Your task to perform on an android device: Add "dell xps" to the cart on target, then select checkout. Image 0: 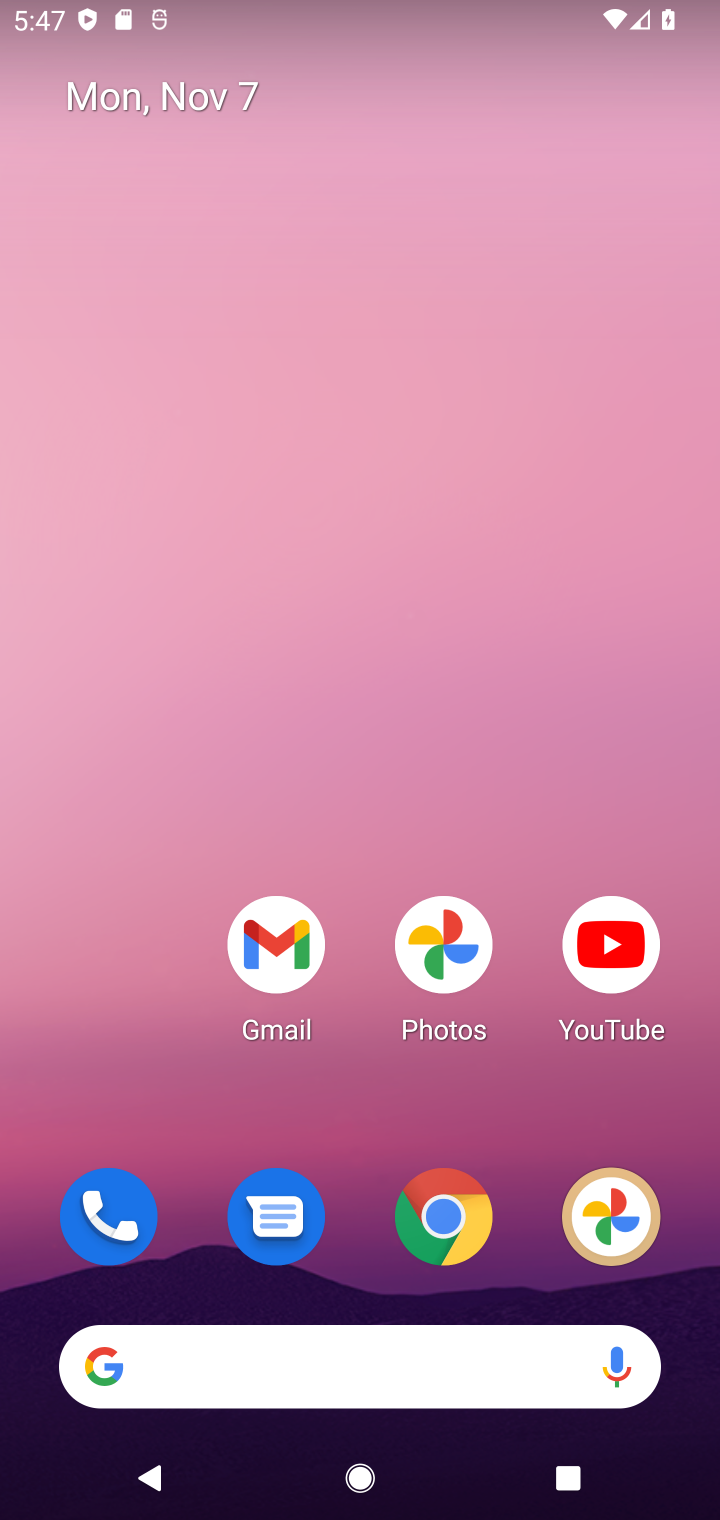
Step 0: drag from (352, 1118) to (153, 21)
Your task to perform on an android device: Add "dell xps" to the cart on target, then select checkout. Image 1: 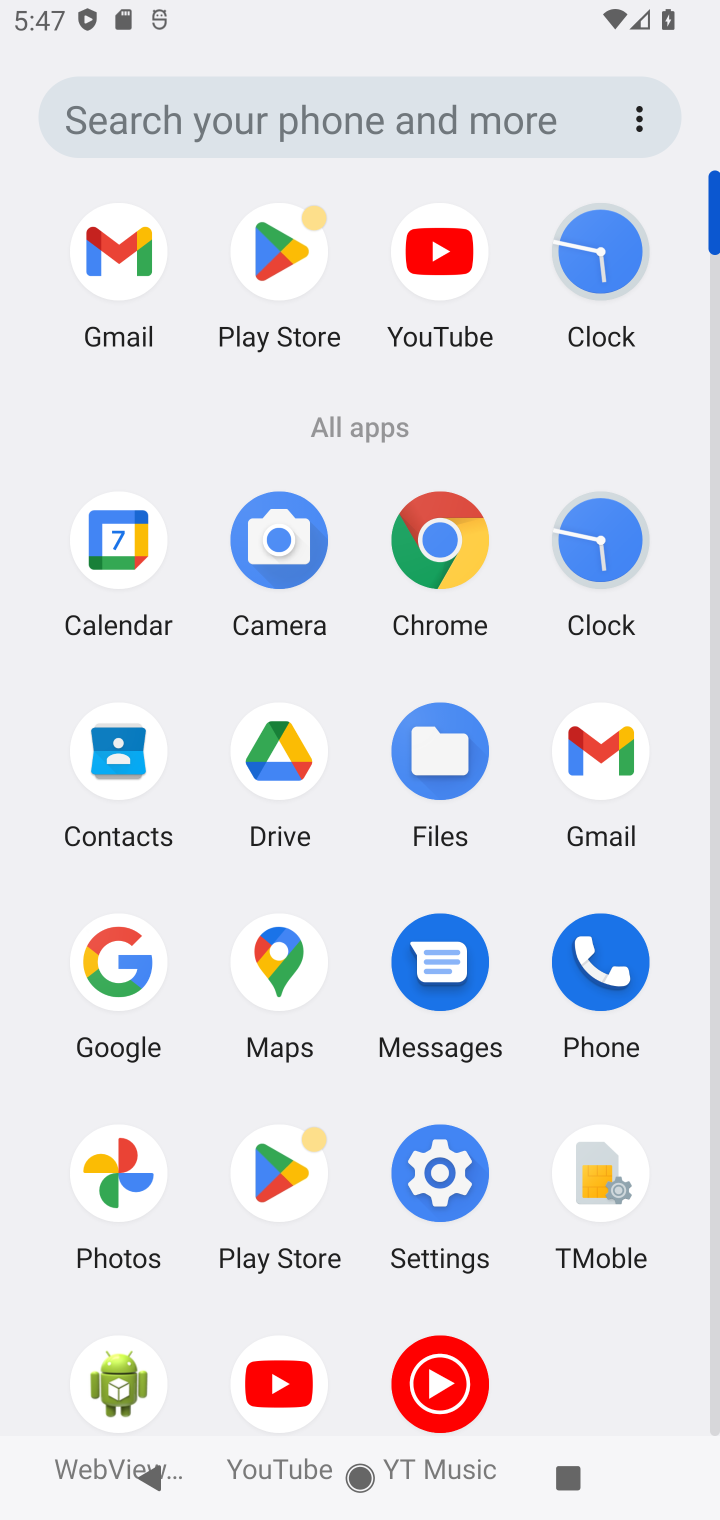
Step 1: click (425, 542)
Your task to perform on an android device: Add "dell xps" to the cart on target, then select checkout. Image 2: 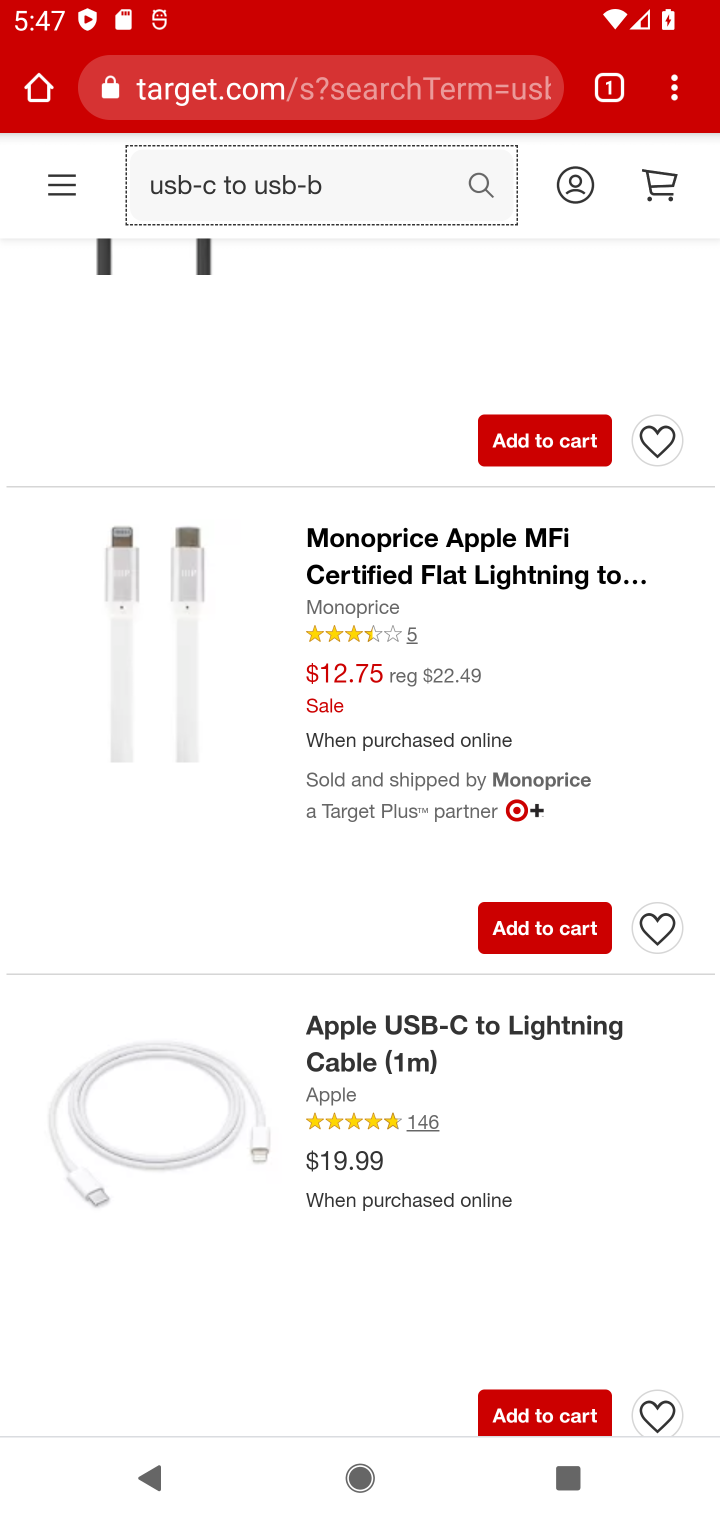
Step 2: click (306, 94)
Your task to perform on an android device: Add "dell xps" to the cart on target, then select checkout. Image 3: 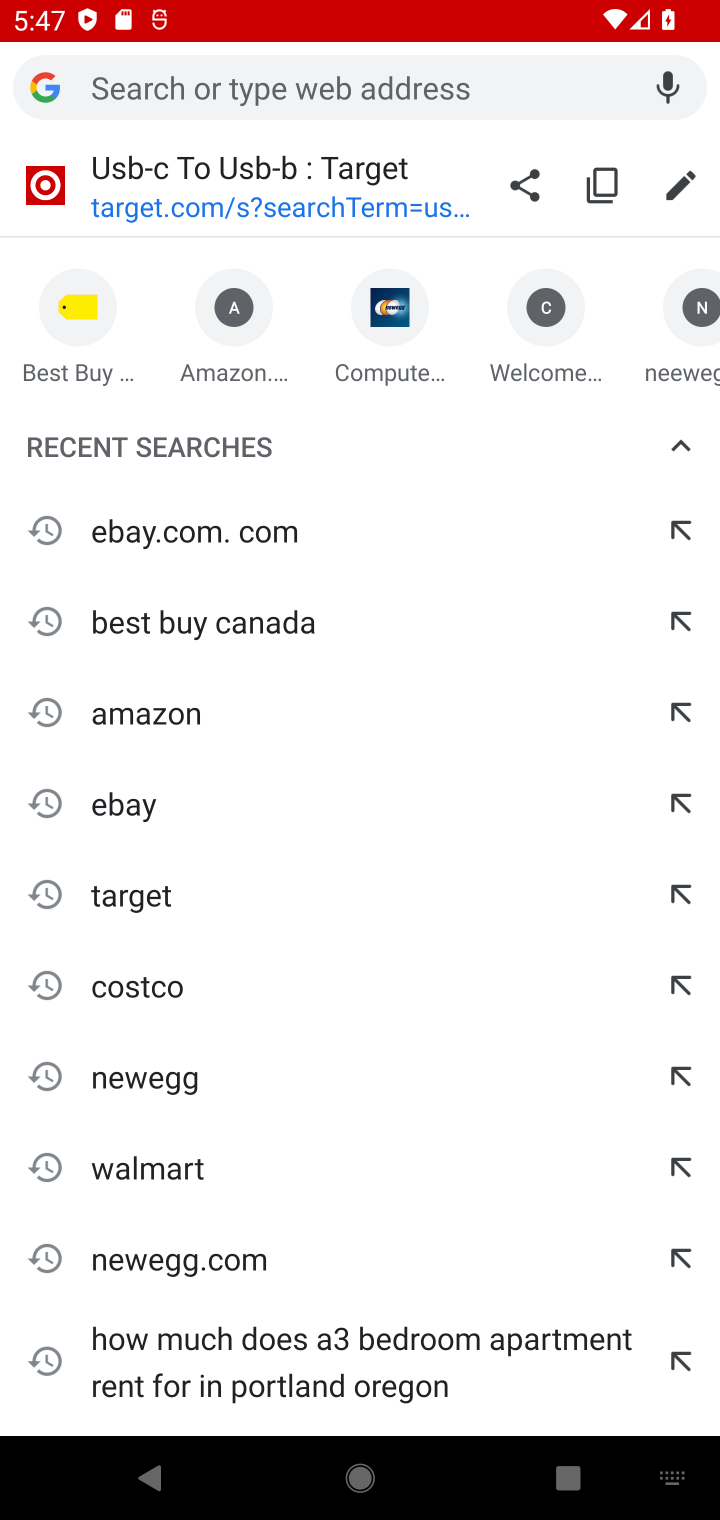
Step 3: type "target.com"
Your task to perform on an android device: Add "dell xps" to the cart on target, then select checkout. Image 4: 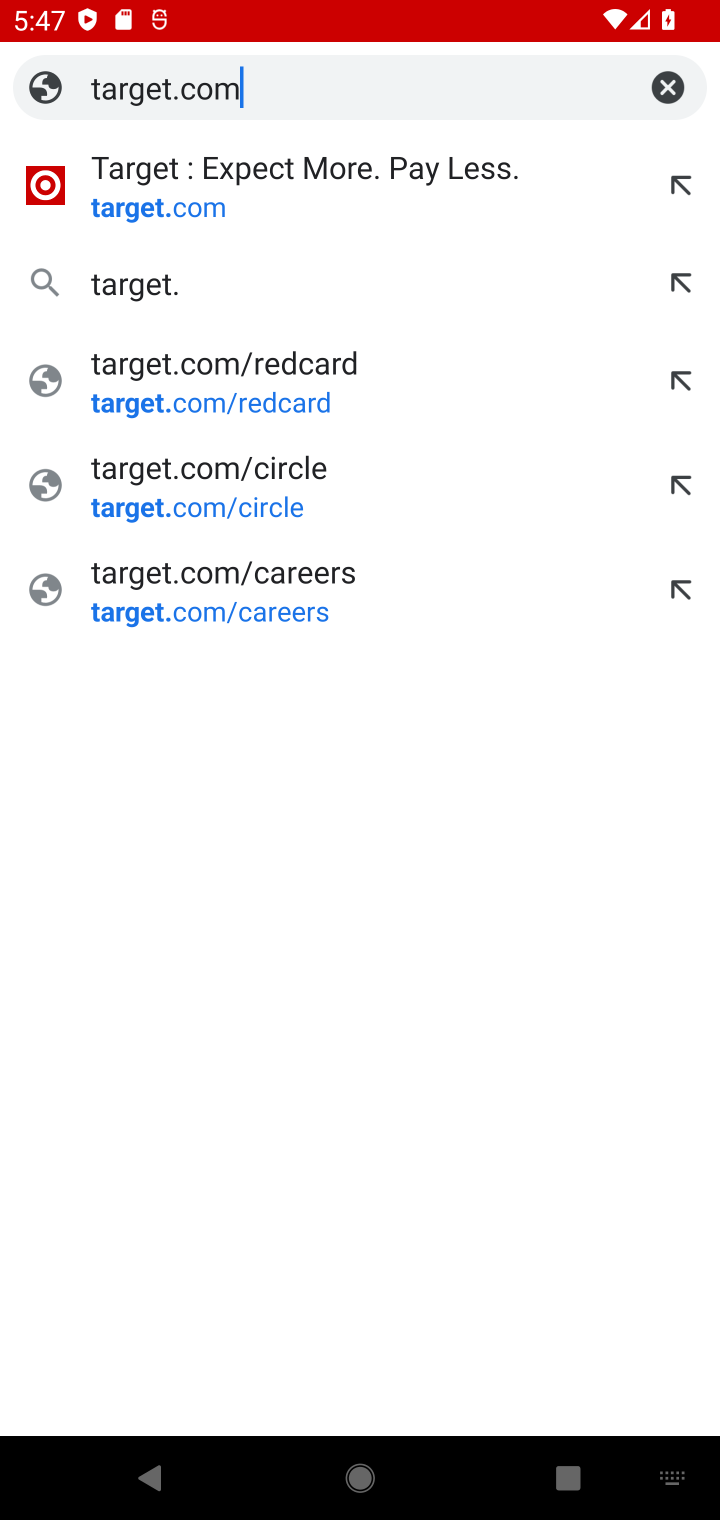
Step 4: press enter
Your task to perform on an android device: Add "dell xps" to the cart on target, then select checkout. Image 5: 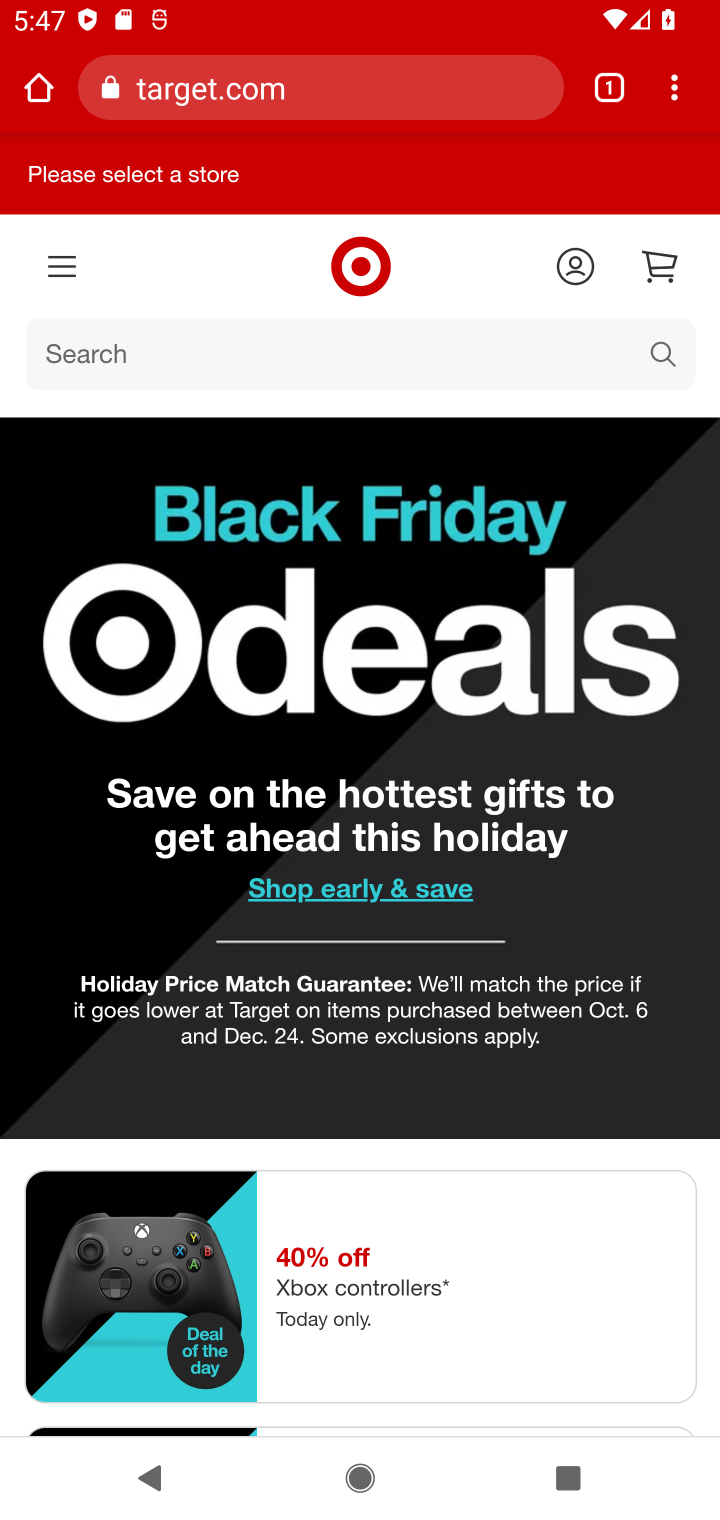
Step 5: click (215, 335)
Your task to perform on an android device: Add "dell xps" to the cart on target, then select checkout. Image 6: 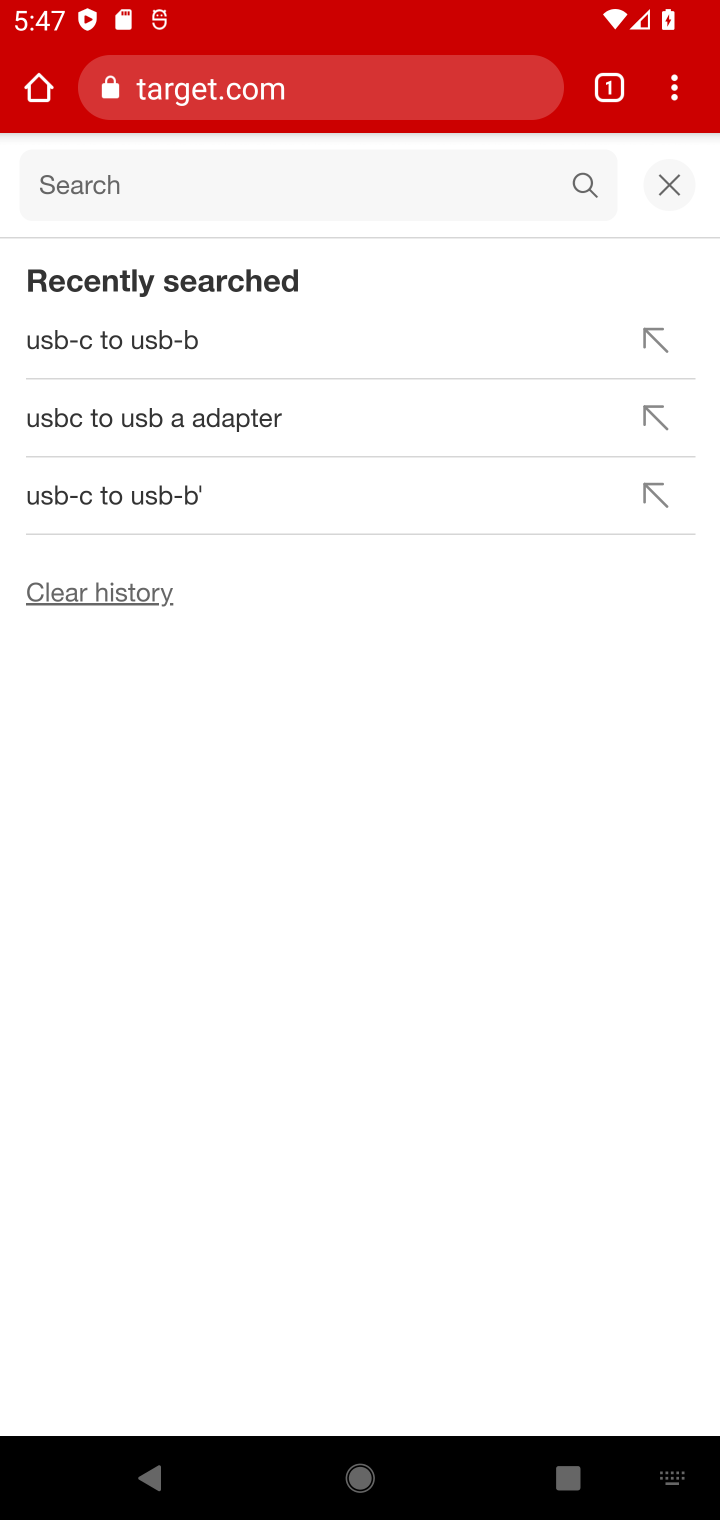
Step 6: type "dell xps"
Your task to perform on an android device: Add "dell xps" to the cart on target, then select checkout. Image 7: 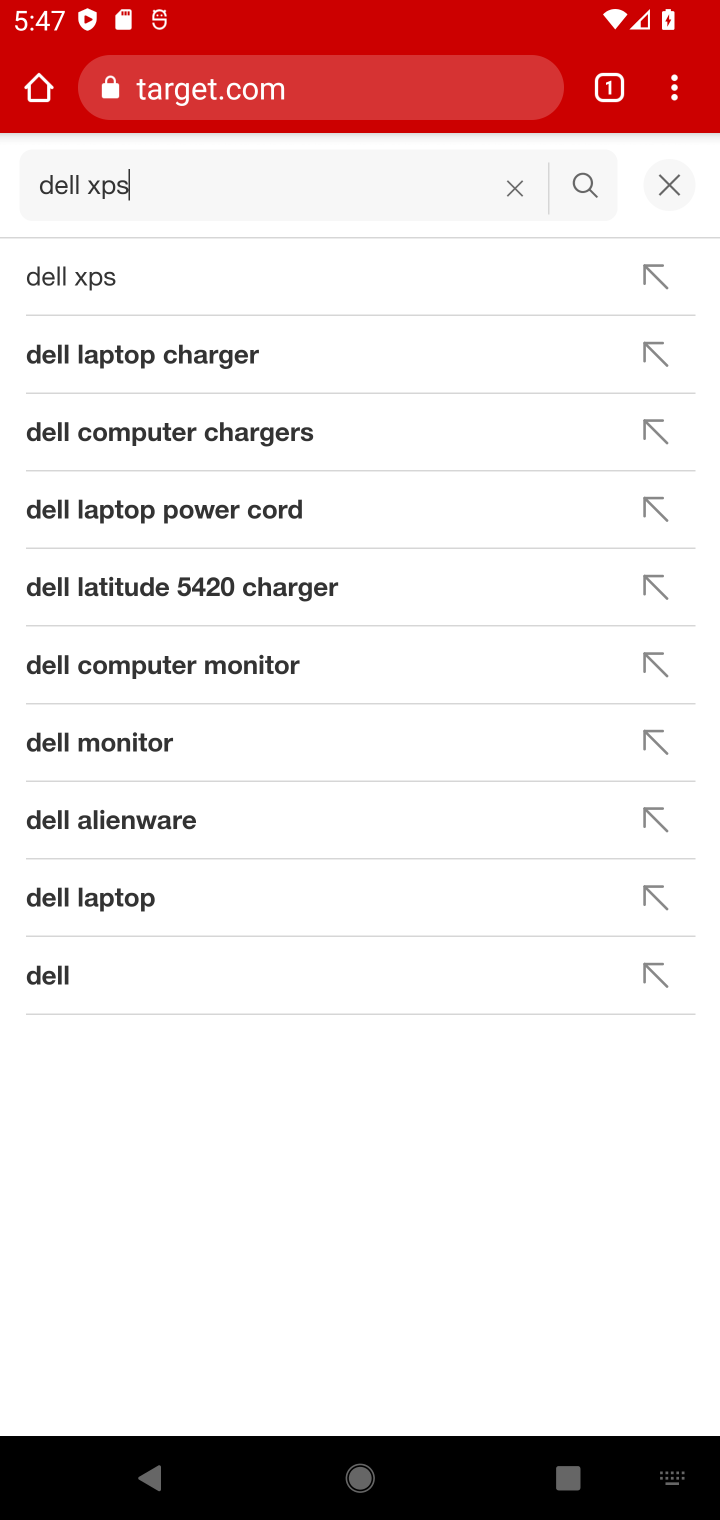
Step 7: press enter
Your task to perform on an android device: Add "dell xps" to the cart on target, then select checkout. Image 8: 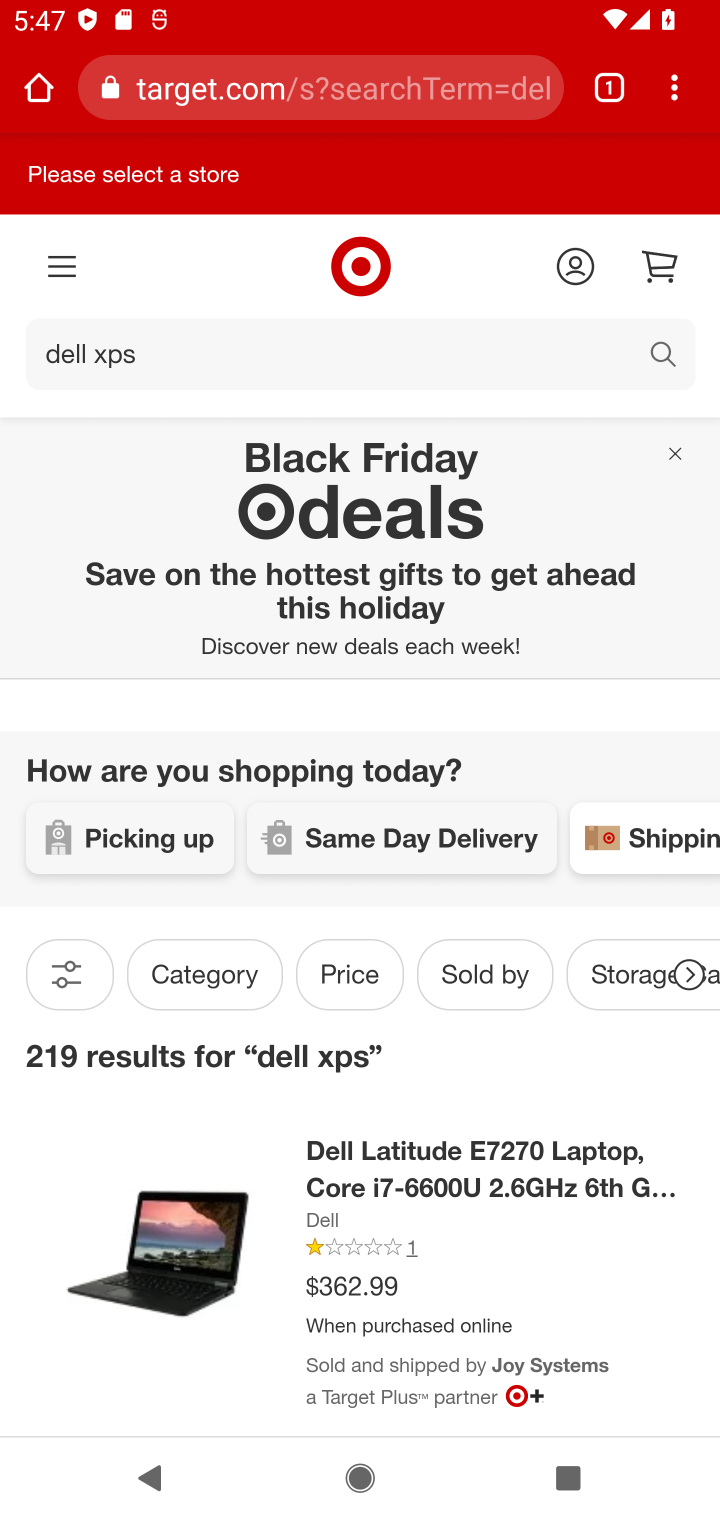
Step 8: drag from (524, 1253) to (365, 575)
Your task to perform on an android device: Add "dell xps" to the cart on target, then select checkout. Image 9: 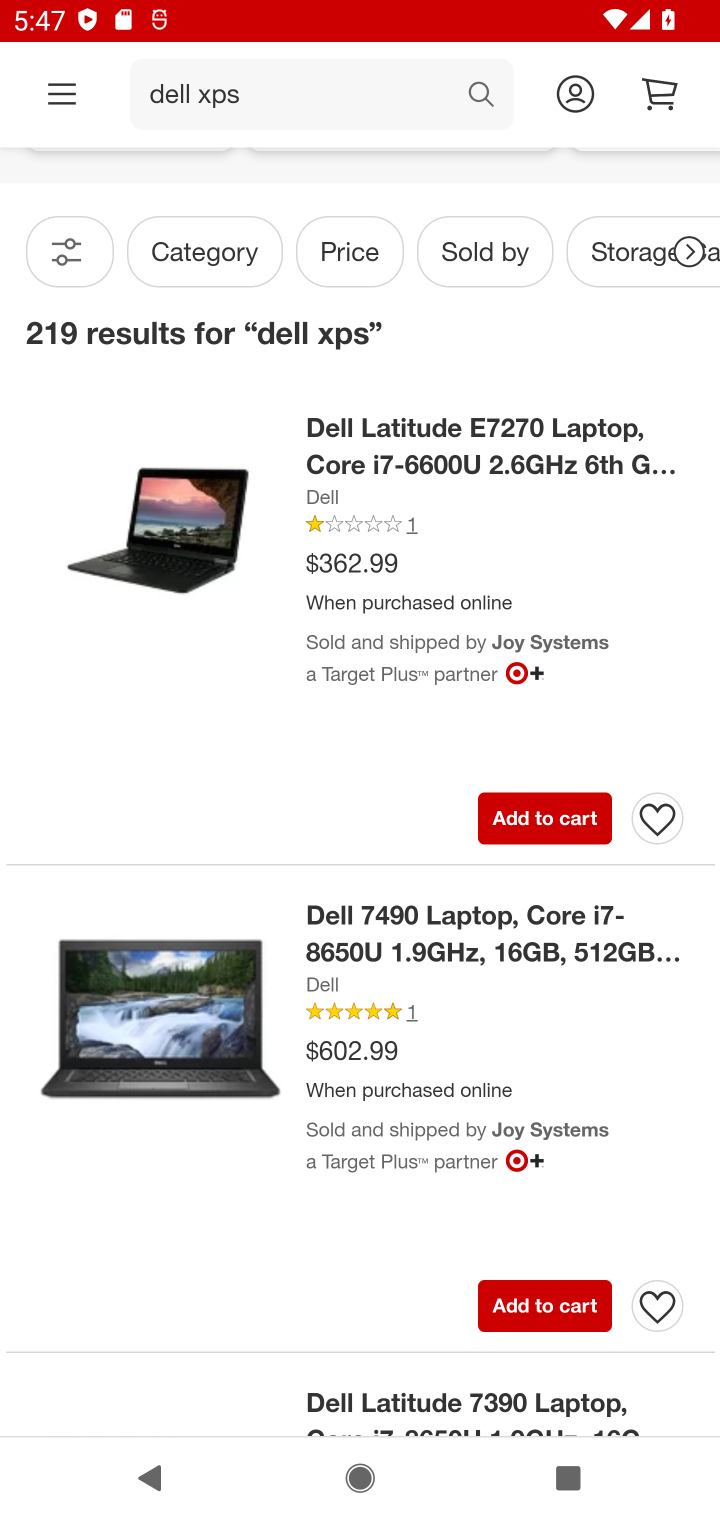
Step 9: drag from (396, 1050) to (408, 372)
Your task to perform on an android device: Add "dell xps" to the cart on target, then select checkout. Image 10: 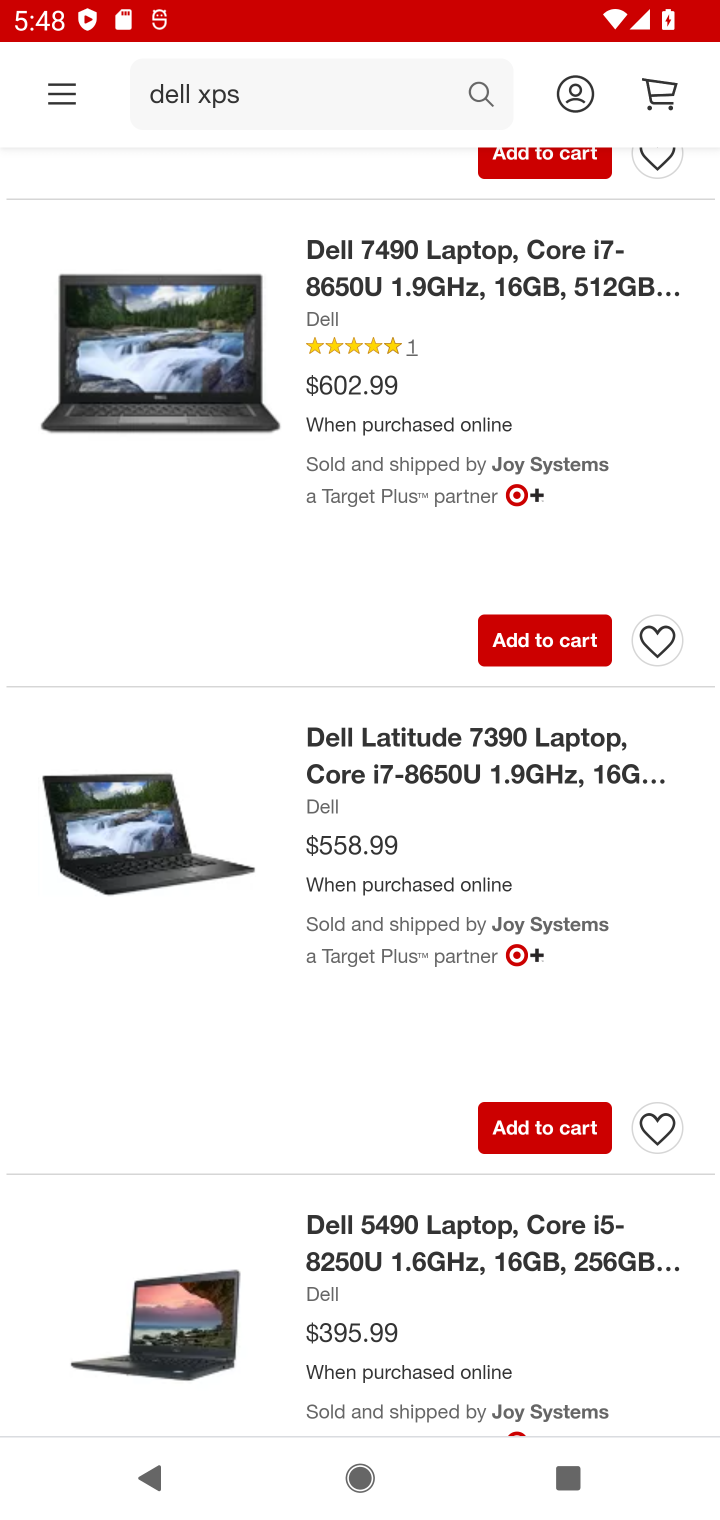
Step 10: drag from (431, 1165) to (449, 484)
Your task to perform on an android device: Add "dell xps" to the cart on target, then select checkout. Image 11: 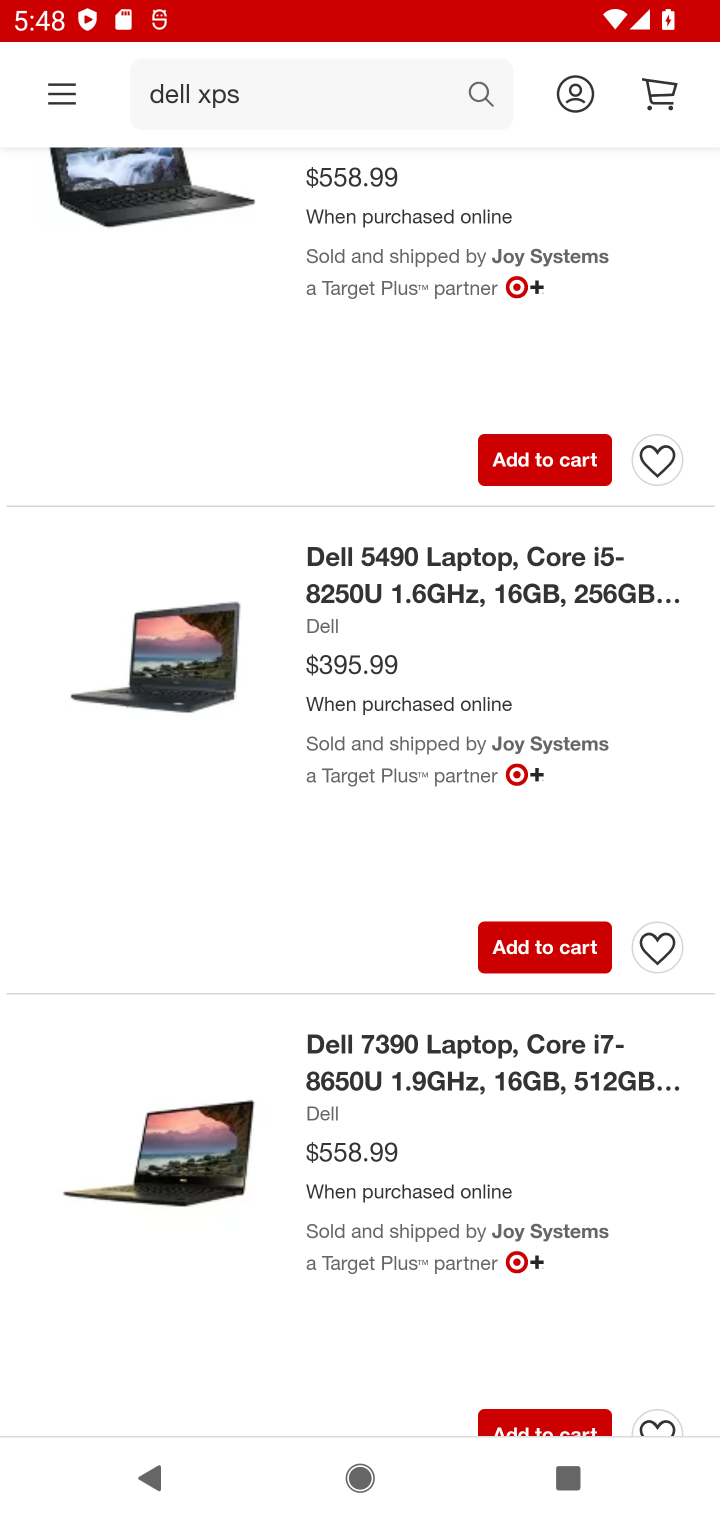
Step 11: drag from (374, 1170) to (395, 684)
Your task to perform on an android device: Add "dell xps" to the cart on target, then select checkout. Image 12: 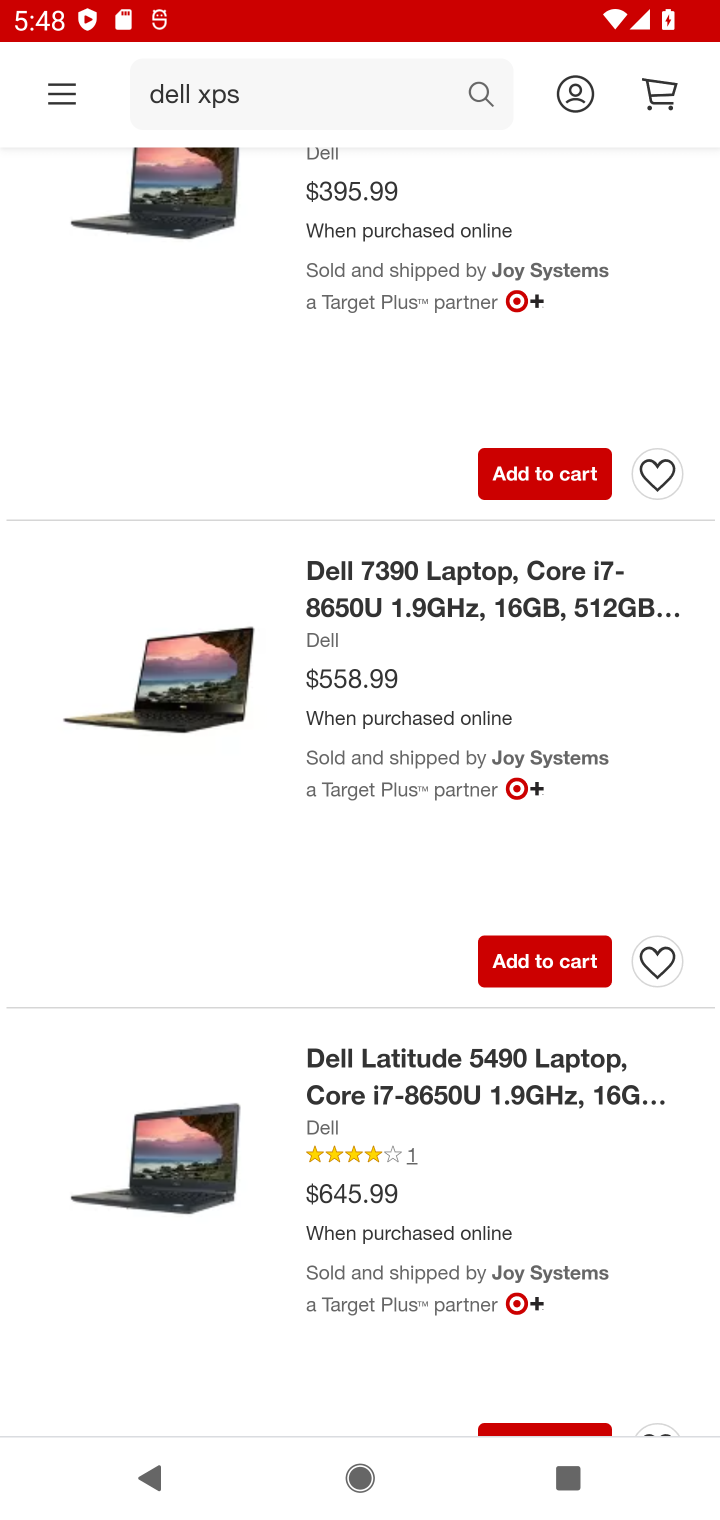
Step 12: click (320, 1319)
Your task to perform on an android device: Add "dell xps" to the cart on target, then select checkout. Image 13: 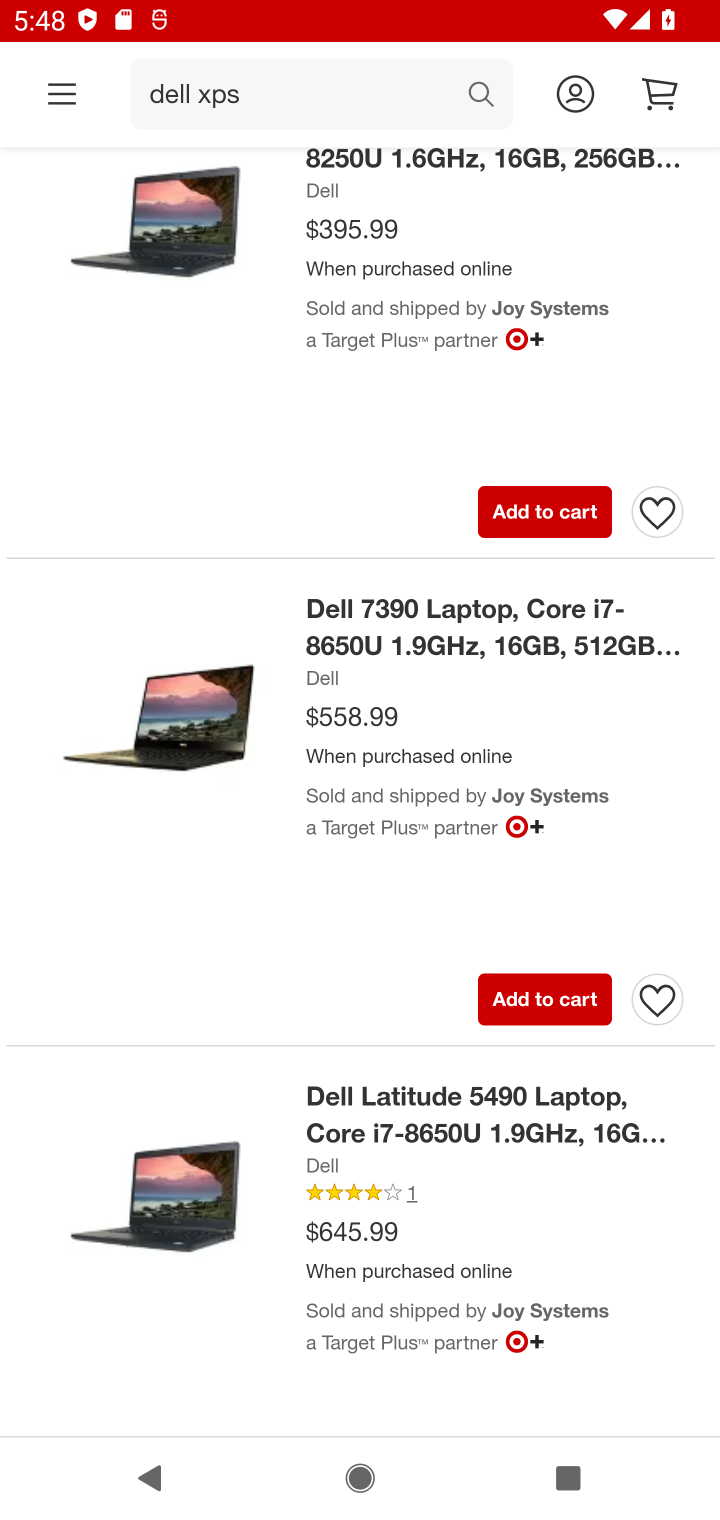
Step 13: drag from (212, 208) to (284, 1397)
Your task to perform on an android device: Add "dell xps" to the cart on target, then select checkout. Image 14: 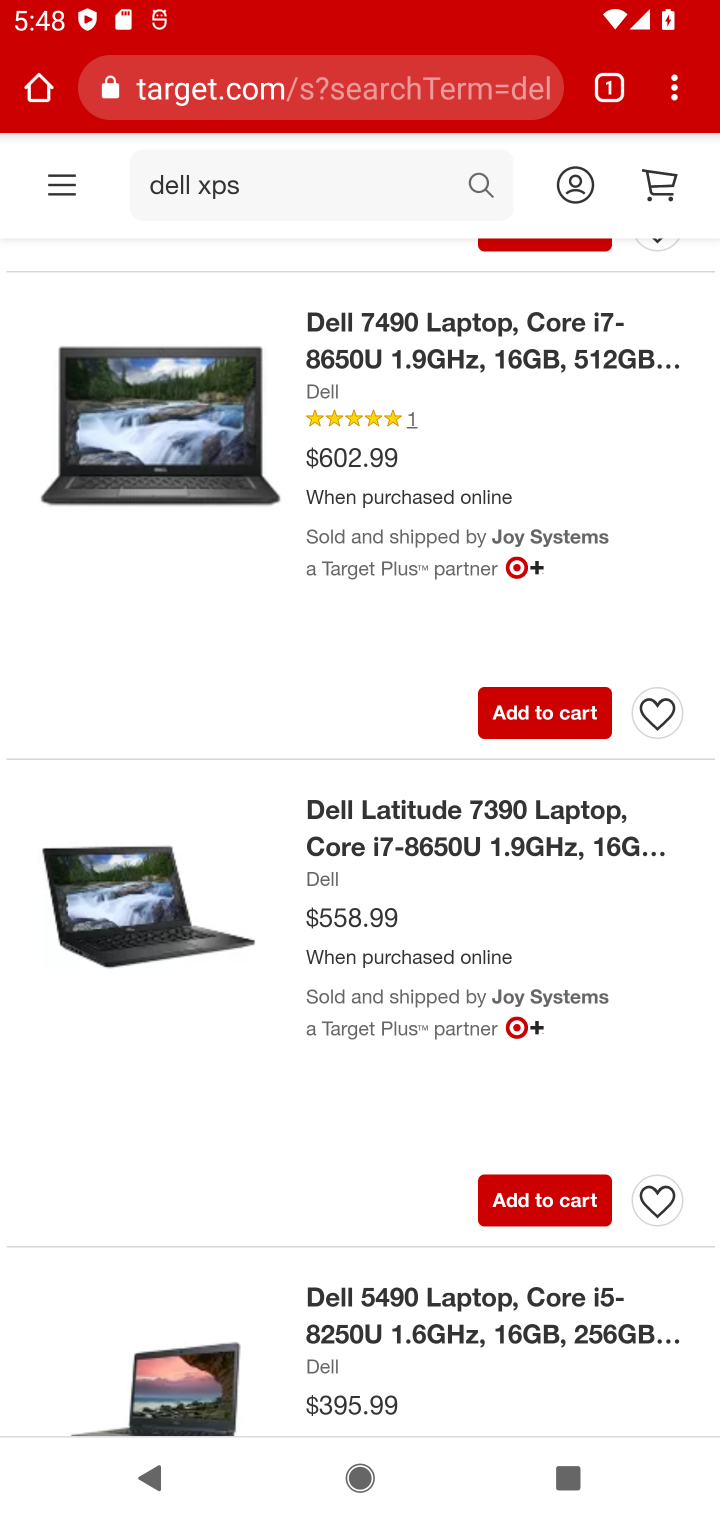
Step 14: drag from (171, 301) to (238, 1465)
Your task to perform on an android device: Add "dell xps" to the cart on target, then select checkout. Image 15: 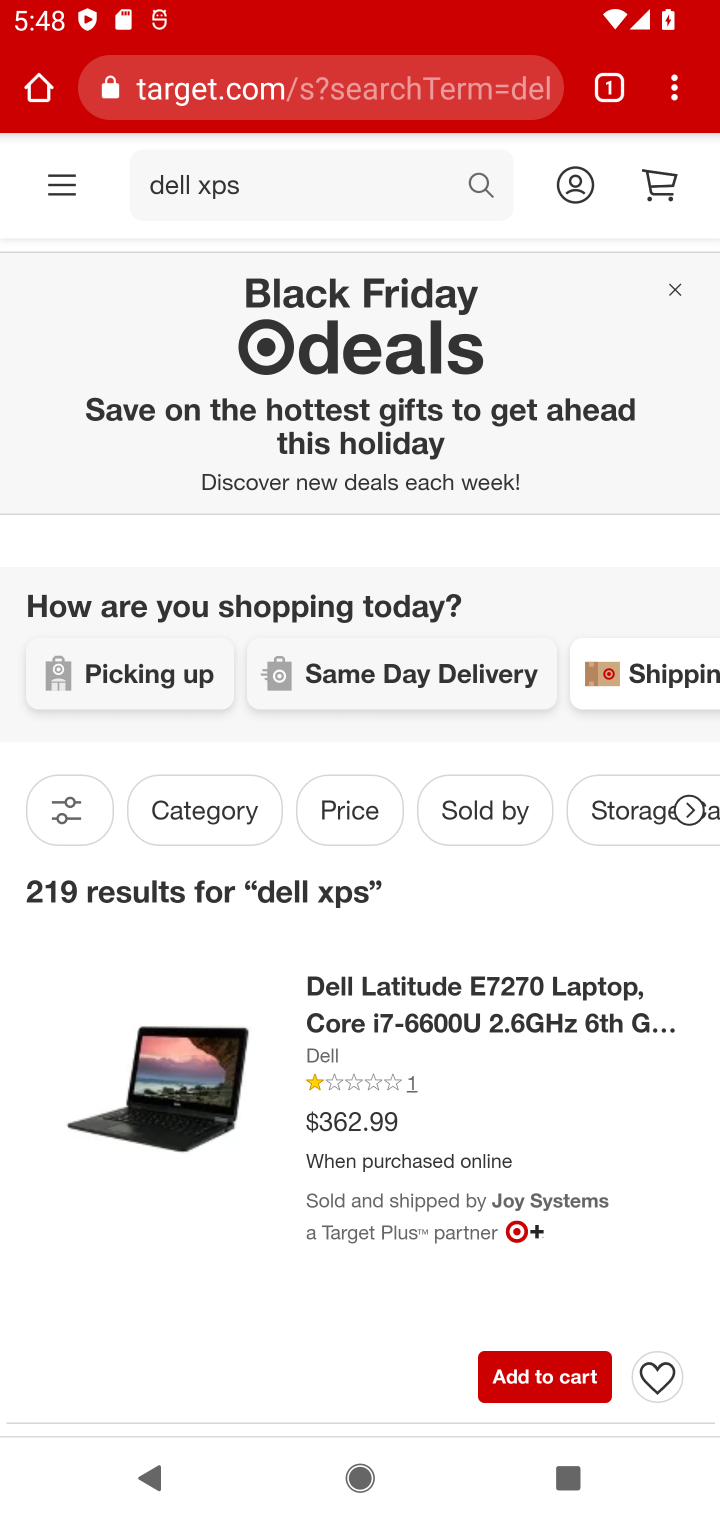
Step 15: click (475, 998)
Your task to perform on an android device: Add "dell xps" to the cart on target, then select checkout. Image 16: 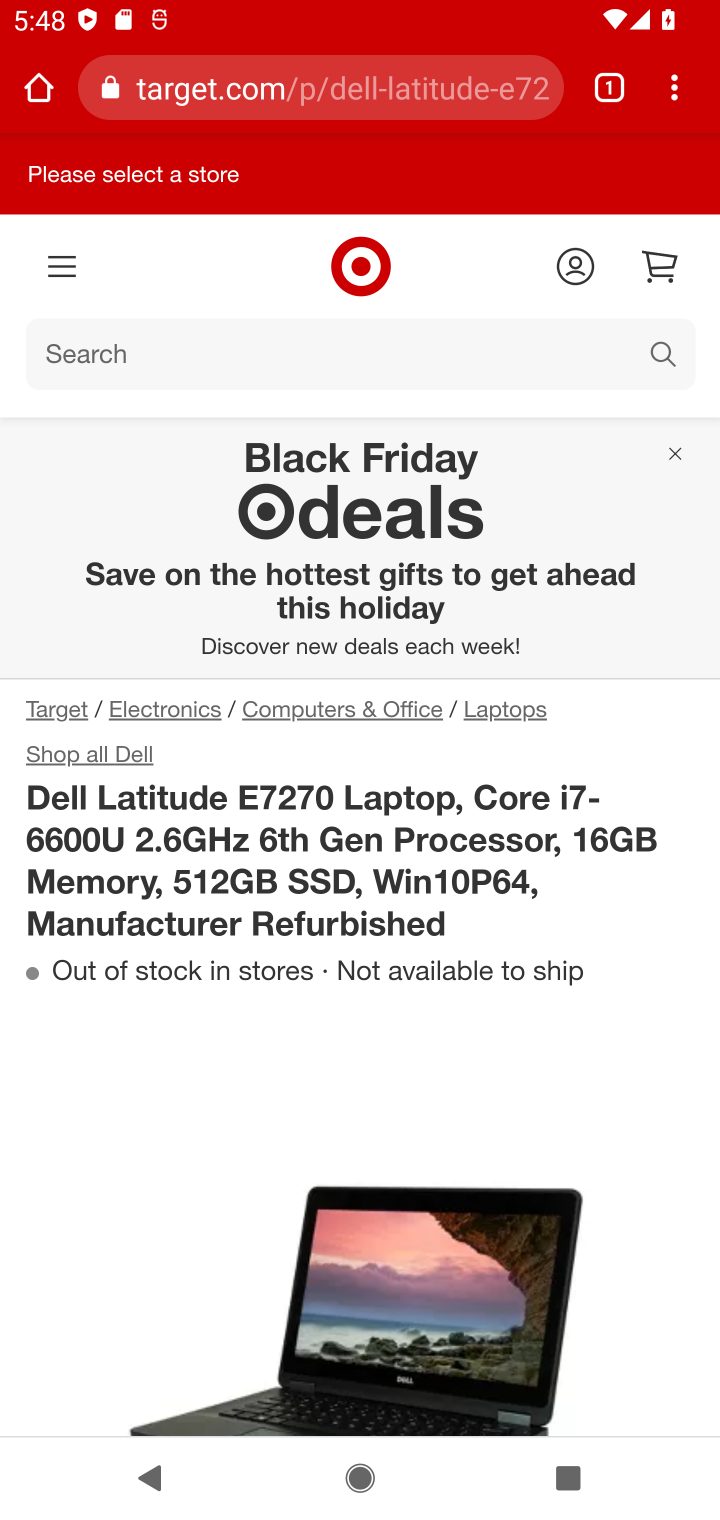
Step 16: task complete